Your task to perform on an android device: Go to Yahoo.com Image 0: 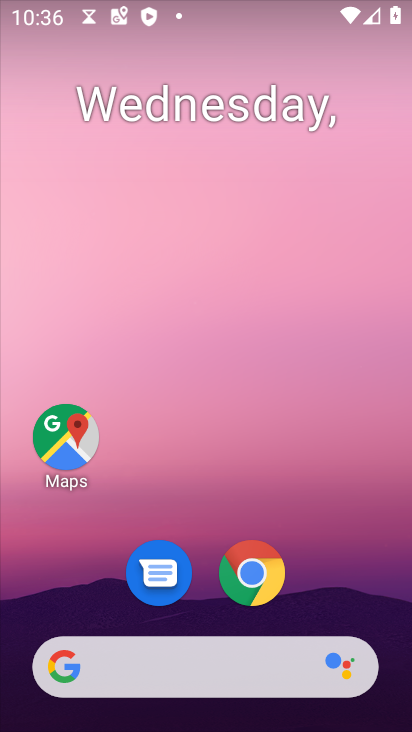
Step 0: click (259, 570)
Your task to perform on an android device: Go to Yahoo.com Image 1: 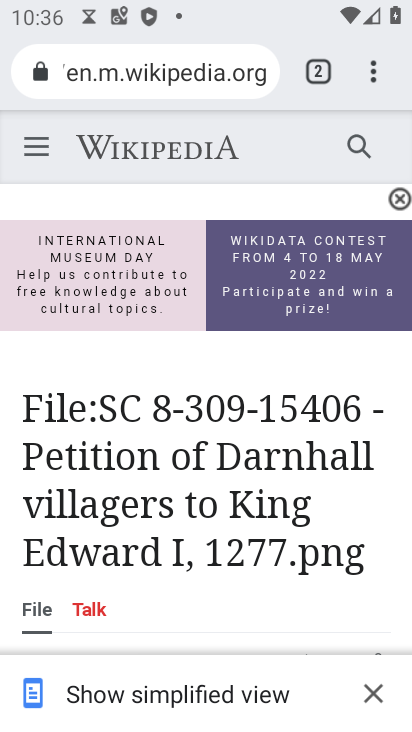
Step 1: click (315, 71)
Your task to perform on an android device: Go to Yahoo.com Image 2: 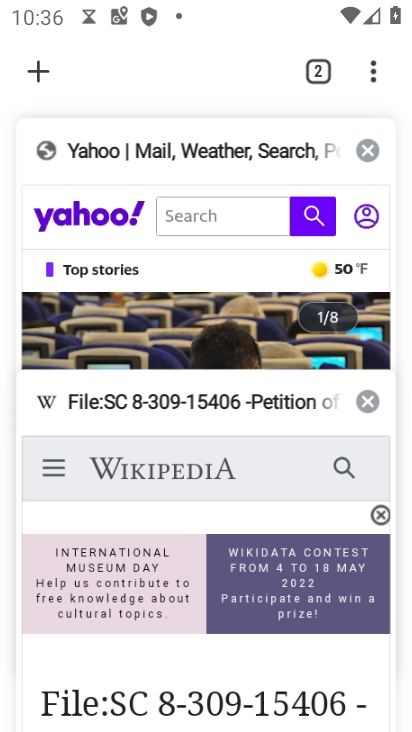
Step 2: click (207, 328)
Your task to perform on an android device: Go to Yahoo.com Image 3: 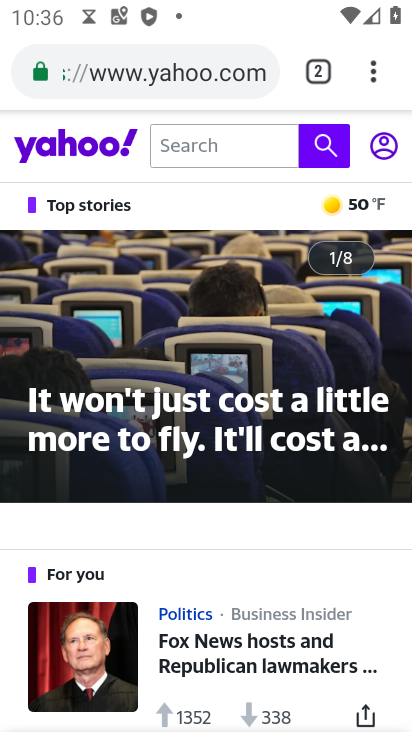
Step 3: task complete